Your task to perform on an android device: When is my next appointment? Image 0: 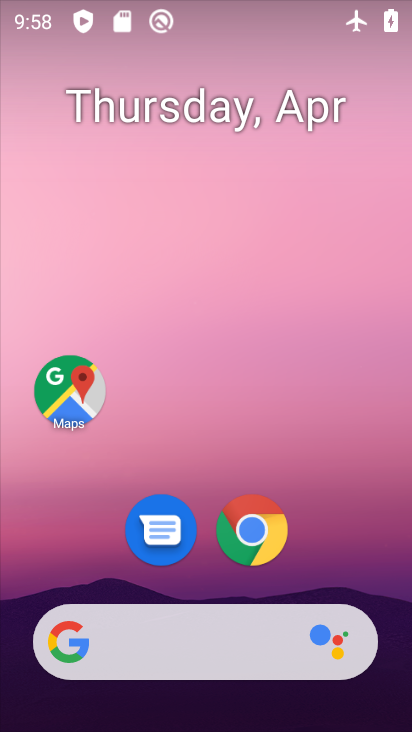
Step 0: drag from (196, 722) to (196, 196)
Your task to perform on an android device: When is my next appointment? Image 1: 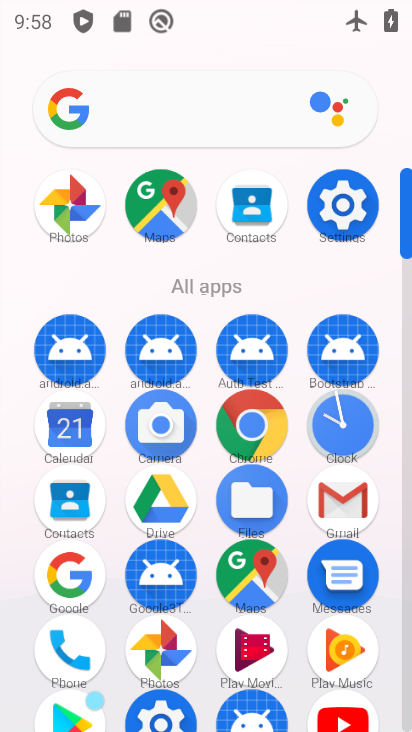
Step 1: click (72, 423)
Your task to perform on an android device: When is my next appointment? Image 2: 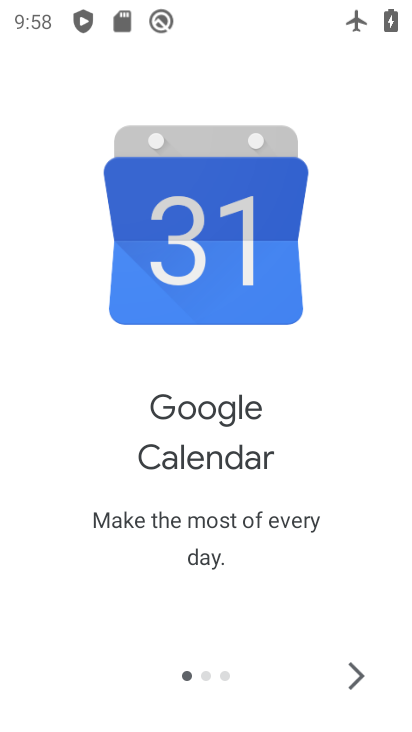
Step 2: click (354, 671)
Your task to perform on an android device: When is my next appointment? Image 3: 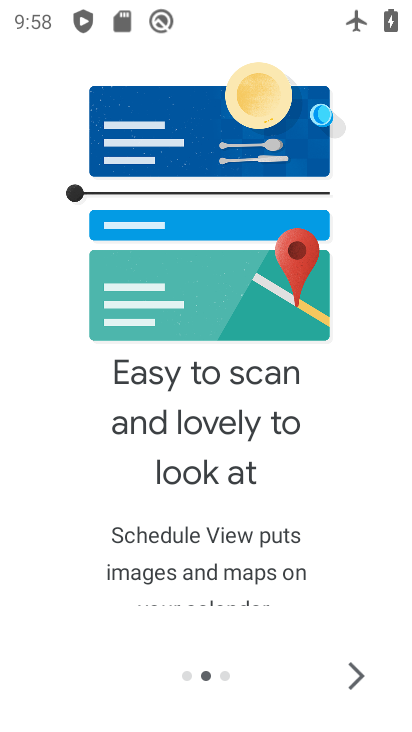
Step 3: click (352, 669)
Your task to perform on an android device: When is my next appointment? Image 4: 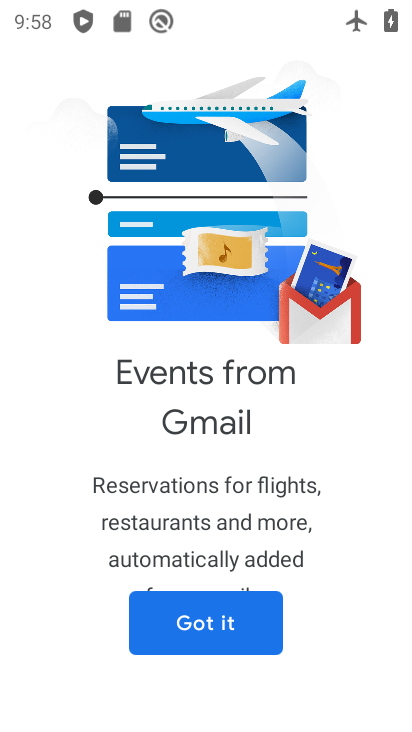
Step 4: click (223, 624)
Your task to perform on an android device: When is my next appointment? Image 5: 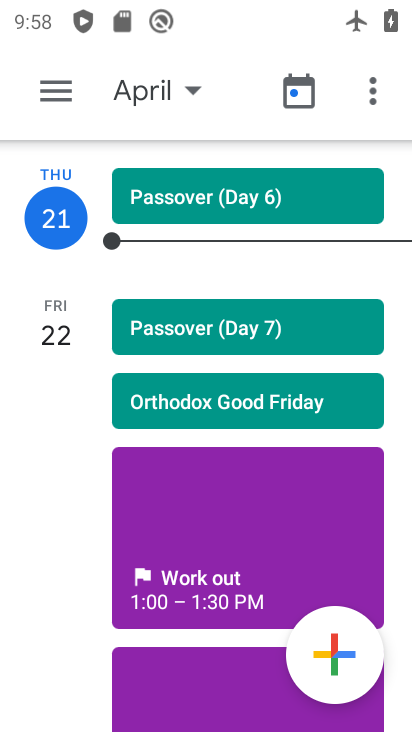
Step 5: click (125, 87)
Your task to perform on an android device: When is my next appointment? Image 6: 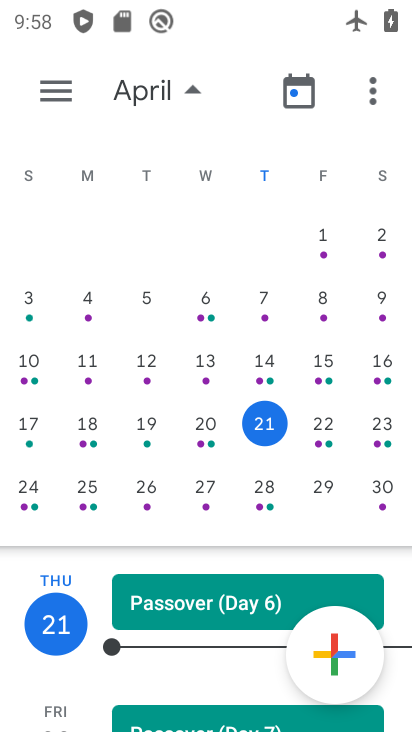
Step 6: click (53, 91)
Your task to perform on an android device: When is my next appointment? Image 7: 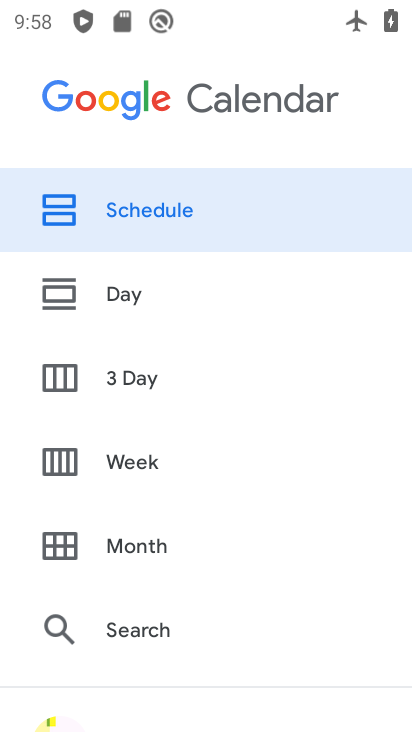
Step 7: drag from (148, 647) to (156, 234)
Your task to perform on an android device: When is my next appointment? Image 8: 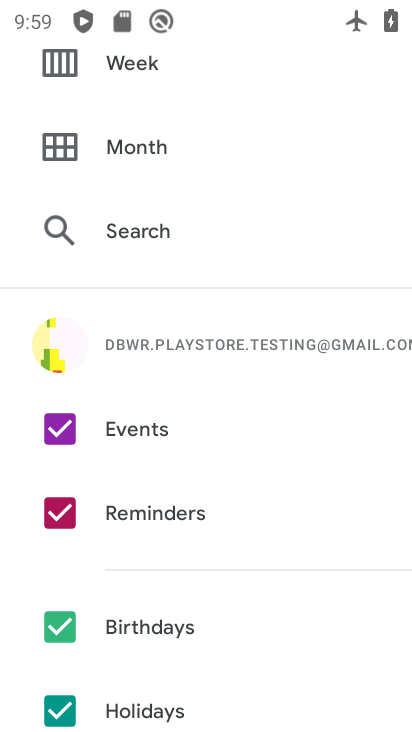
Step 8: click (60, 711)
Your task to perform on an android device: When is my next appointment? Image 9: 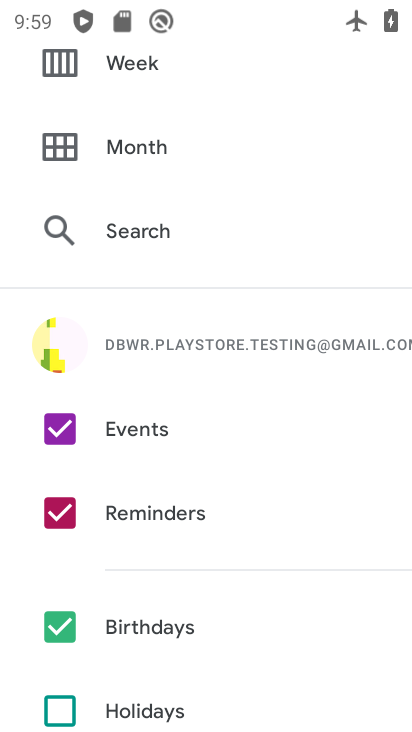
Step 9: click (57, 622)
Your task to perform on an android device: When is my next appointment? Image 10: 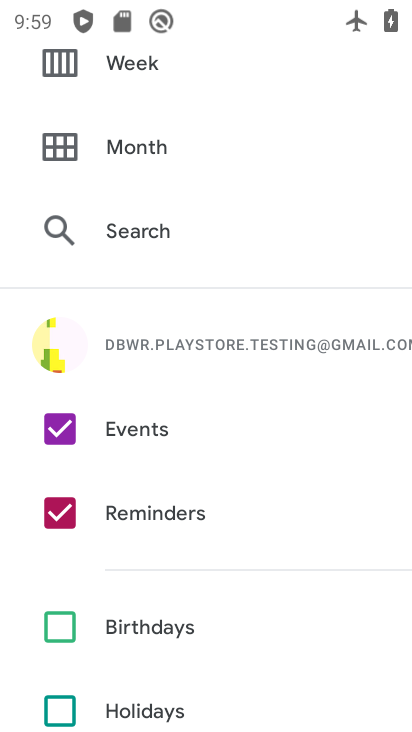
Step 10: click (55, 513)
Your task to perform on an android device: When is my next appointment? Image 11: 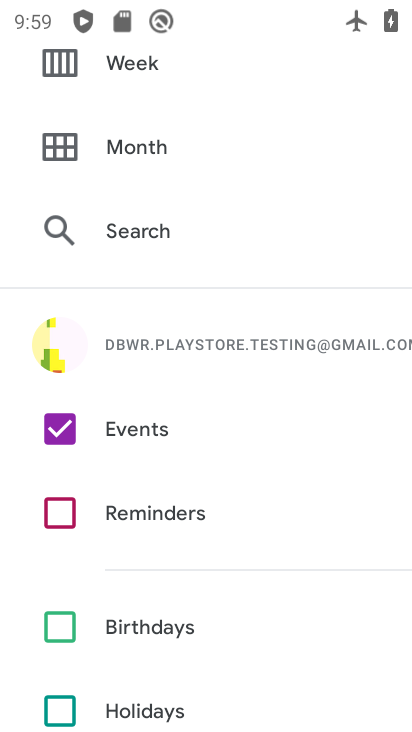
Step 11: drag from (238, 147) to (250, 535)
Your task to perform on an android device: When is my next appointment? Image 12: 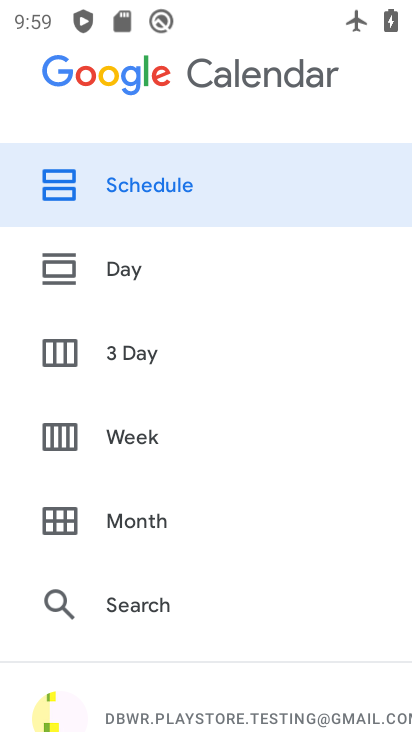
Step 12: click (184, 193)
Your task to perform on an android device: When is my next appointment? Image 13: 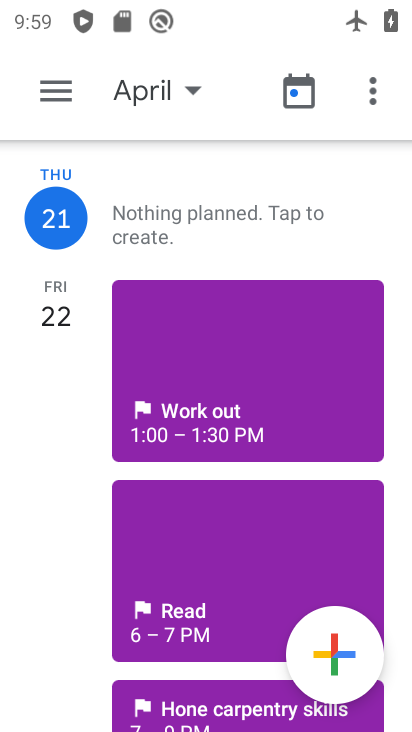
Step 13: task complete